Your task to perform on an android device: allow cookies in the chrome app Image 0: 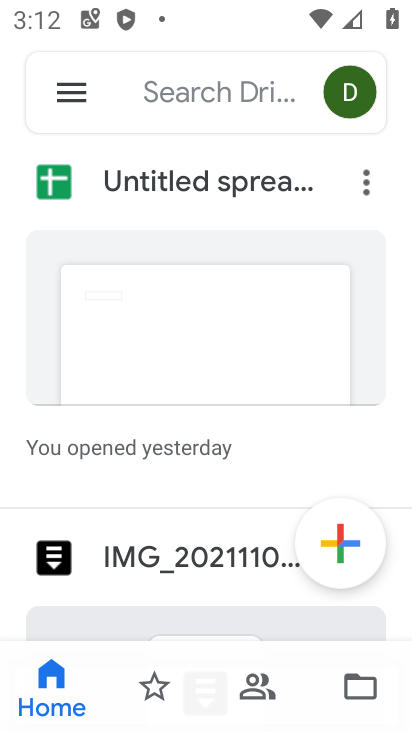
Step 0: press home button
Your task to perform on an android device: allow cookies in the chrome app Image 1: 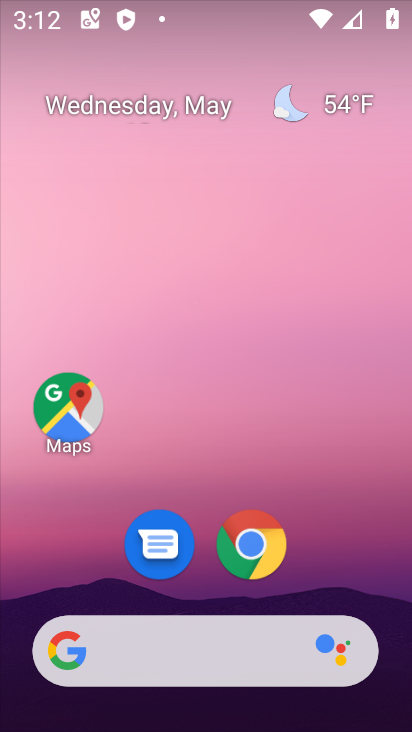
Step 1: click (252, 552)
Your task to perform on an android device: allow cookies in the chrome app Image 2: 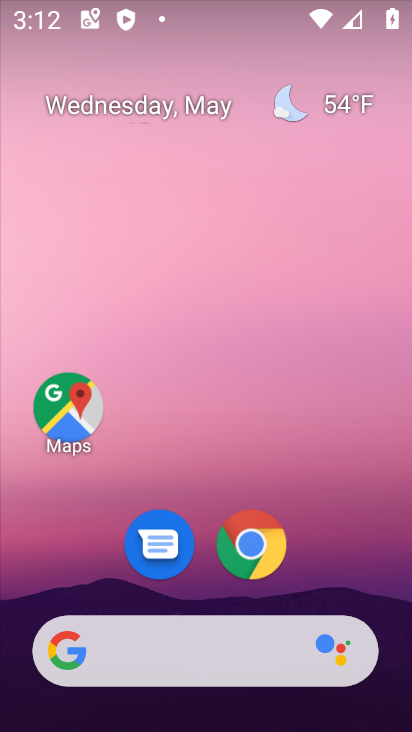
Step 2: click (252, 552)
Your task to perform on an android device: allow cookies in the chrome app Image 3: 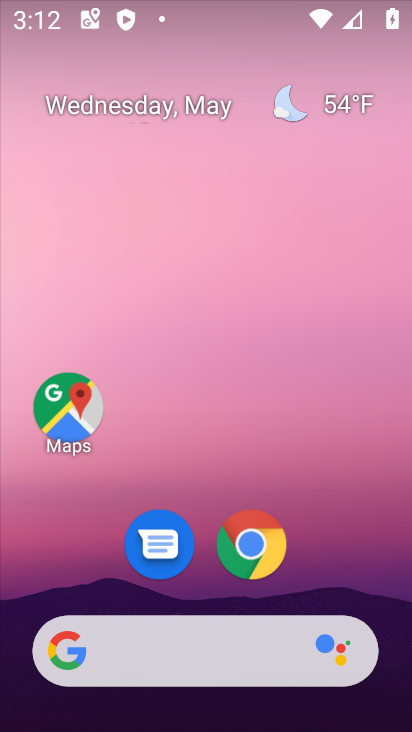
Step 3: click (266, 529)
Your task to perform on an android device: allow cookies in the chrome app Image 4: 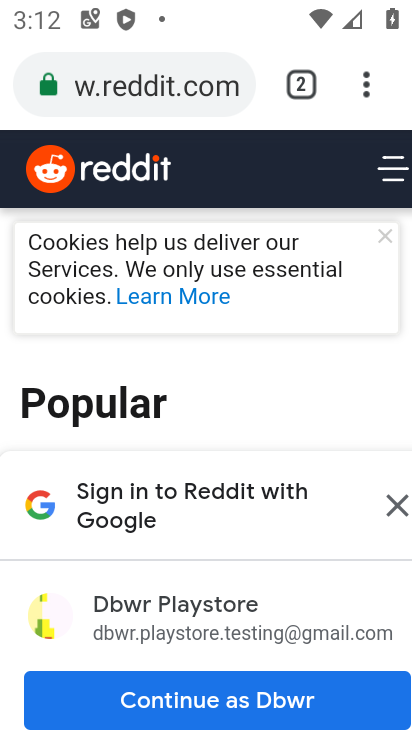
Step 4: click (370, 85)
Your task to perform on an android device: allow cookies in the chrome app Image 5: 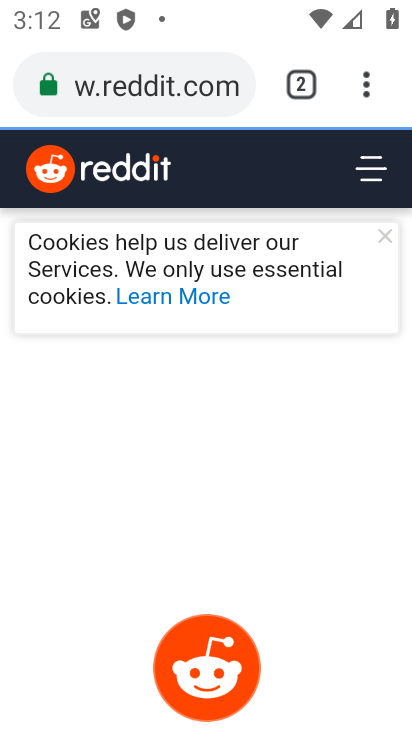
Step 5: click (368, 87)
Your task to perform on an android device: allow cookies in the chrome app Image 6: 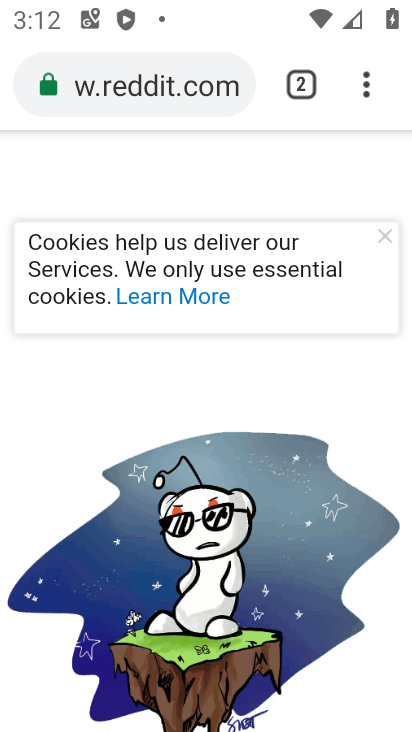
Step 6: click (368, 87)
Your task to perform on an android device: allow cookies in the chrome app Image 7: 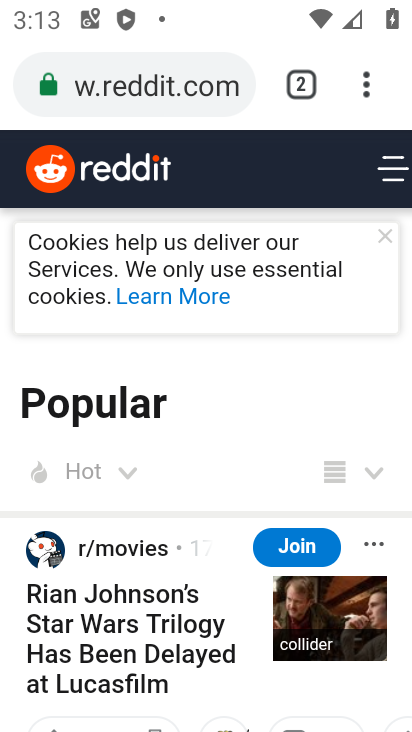
Step 7: click (365, 81)
Your task to perform on an android device: allow cookies in the chrome app Image 8: 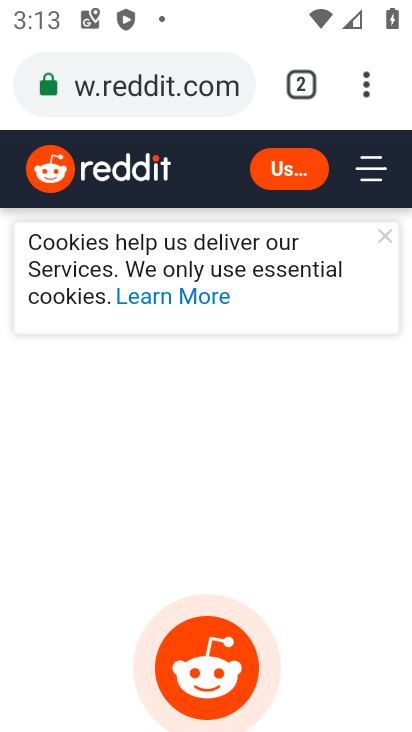
Step 8: click (375, 89)
Your task to perform on an android device: allow cookies in the chrome app Image 9: 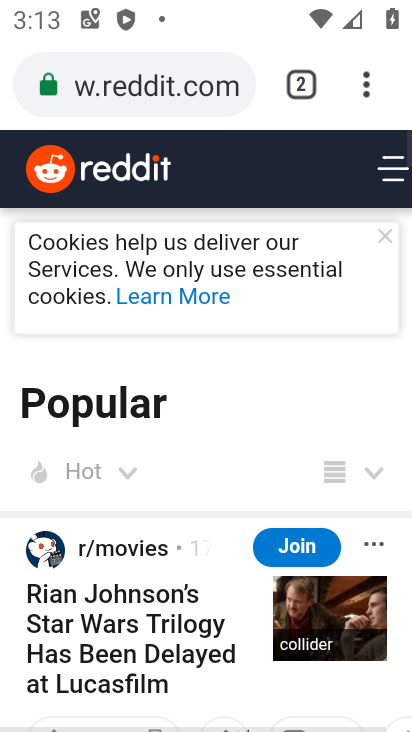
Step 9: click (374, 90)
Your task to perform on an android device: allow cookies in the chrome app Image 10: 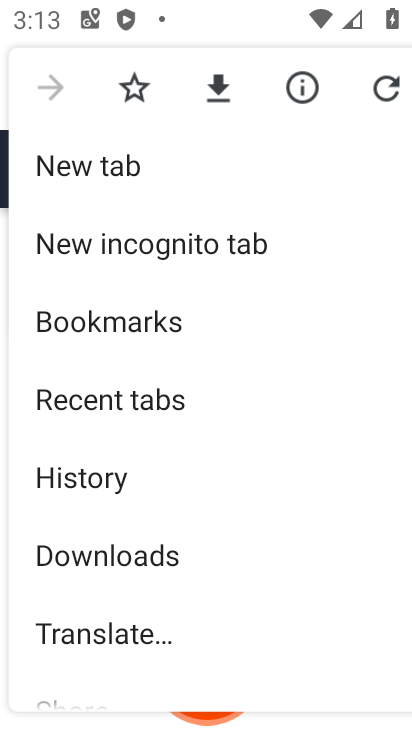
Step 10: drag from (207, 623) to (286, 245)
Your task to perform on an android device: allow cookies in the chrome app Image 11: 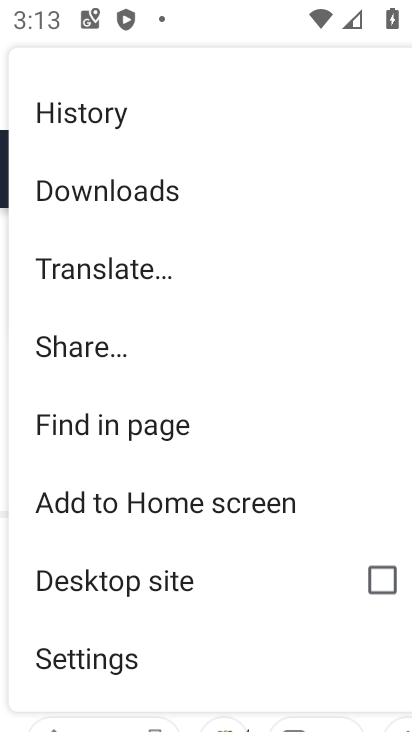
Step 11: click (190, 666)
Your task to perform on an android device: allow cookies in the chrome app Image 12: 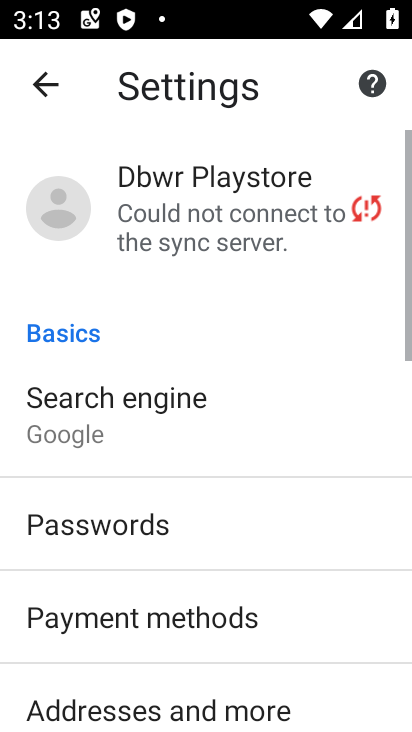
Step 12: drag from (245, 611) to (316, 129)
Your task to perform on an android device: allow cookies in the chrome app Image 13: 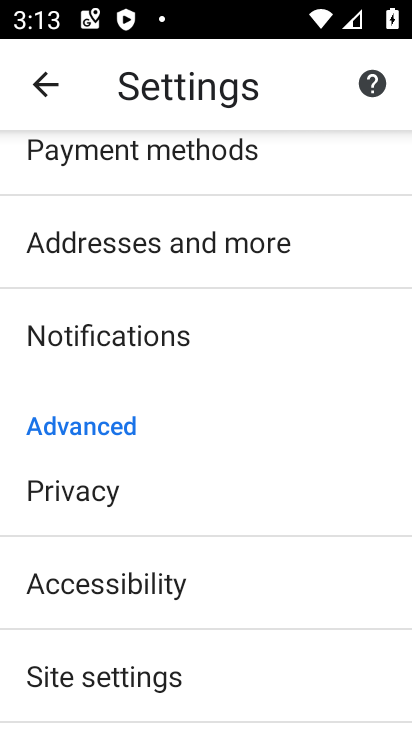
Step 13: click (223, 701)
Your task to perform on an android device: allow cookies in the chrome app Image 14: 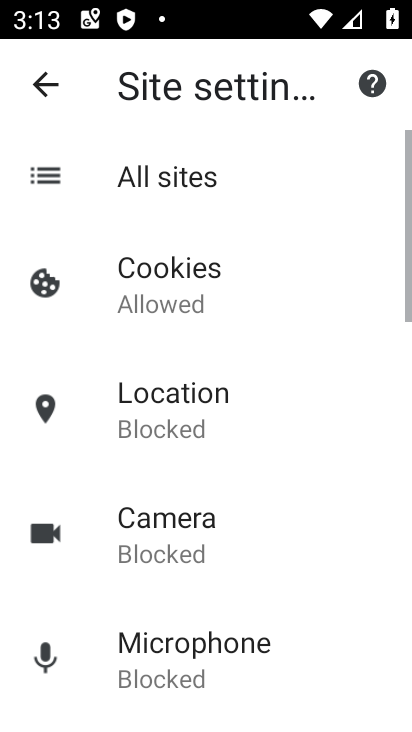
Step 14: task complete